Your task to perform on an android device: Check the weather Image 0: 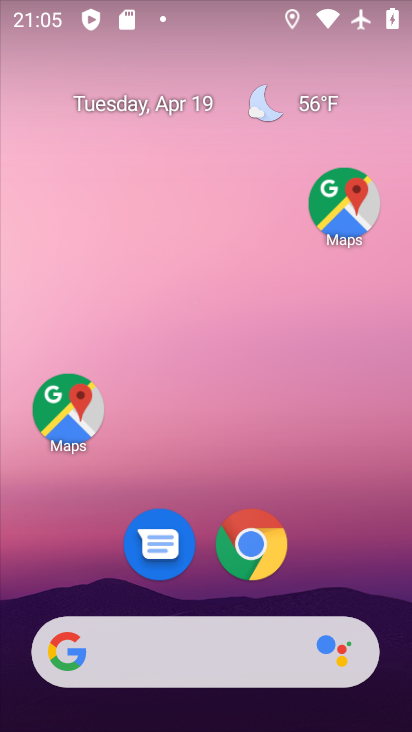
Step 0: drag from (35, 254) to (316, 322)
Your task to perform on an android device: Check the weather Image 1: 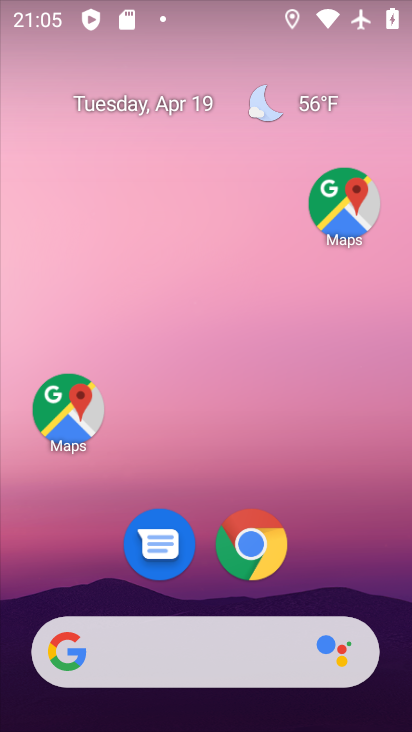
Step 1: drag from (8, 266) to (402, 314)
Your task to perform on an android device: Check the weather Image 2: 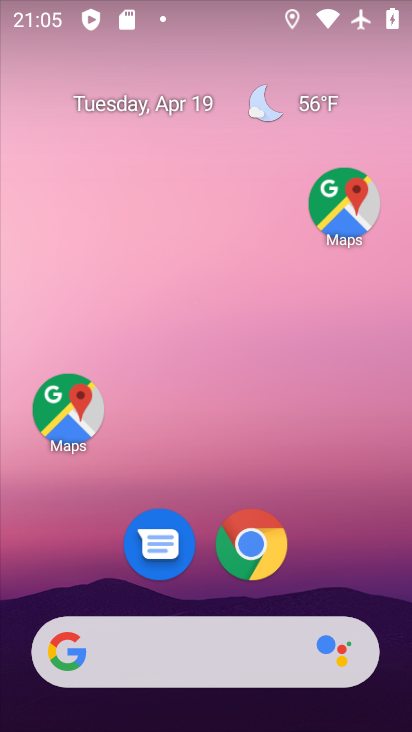
Step 2: drag from (0, 252) to (388, 308)
Your task to perform on an android device: Check the weather Image 3: 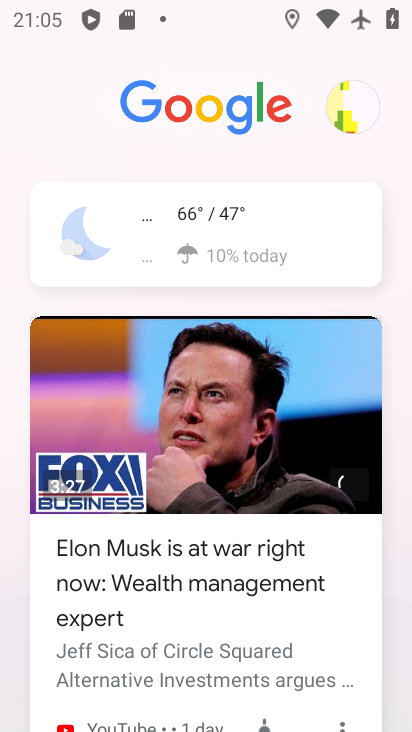
Step 3: click (227, 218)
Your task to perform on an android device: Check the weather Image 4: 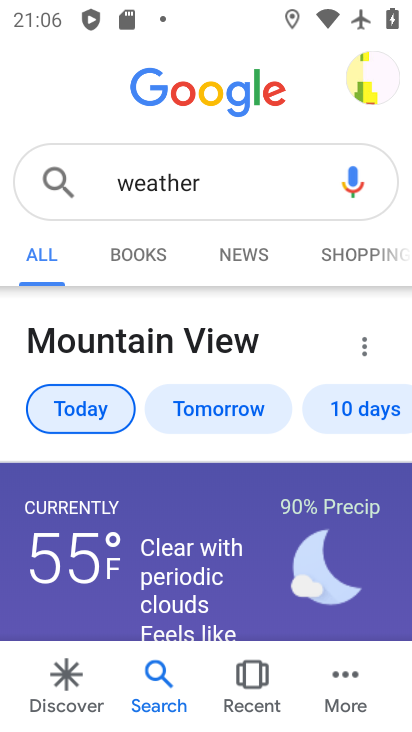
Step 4: task complete